Your task to perform on an android device: turn notification dots on Image 0: 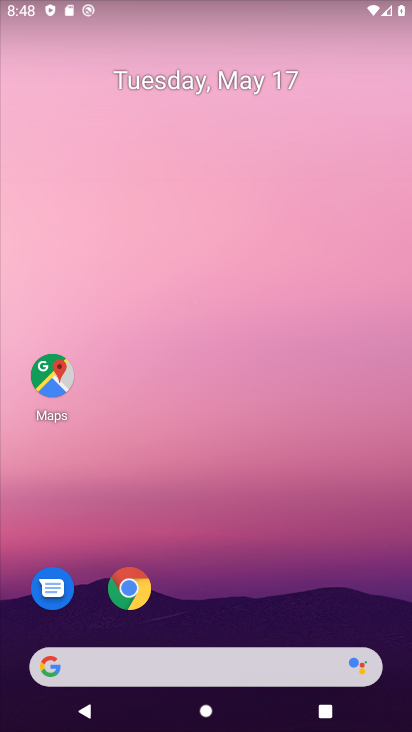
Step 0: drag from (382, 610) to (372, 315)
Your task to perform on an android device: turn notification dots on Image 1: 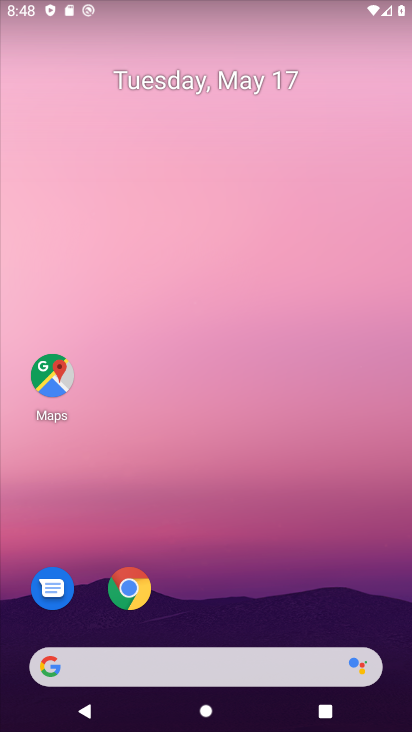
Step 1: drag from (369, 524) to (359, 324)
Your task to perform on an android device: turn notification dots on Image 2: 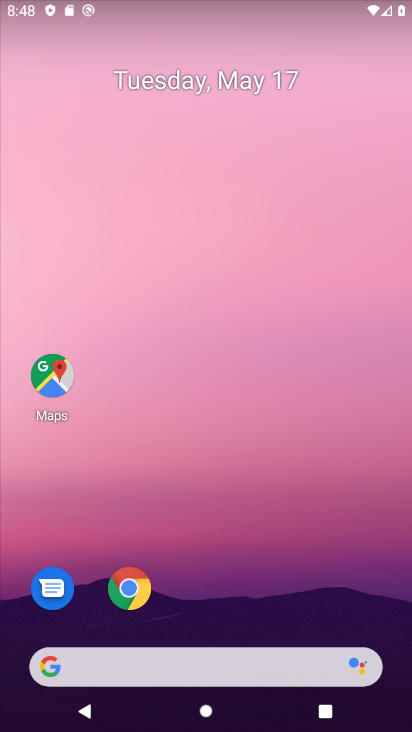
Step 2: drag from (365, 562) to (339, 257)
Your task to perform on an android device: turn notification dots on Image 3: 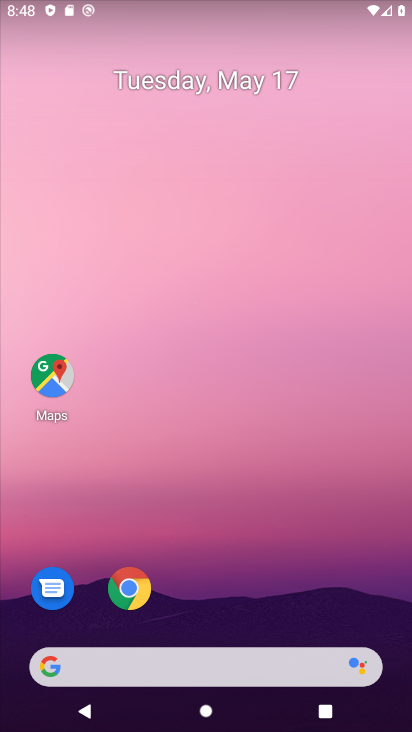
Step 3: drag from (403, 711) to (388, 312)
Your task to perform on an android device: turn notification dots on Image 4: 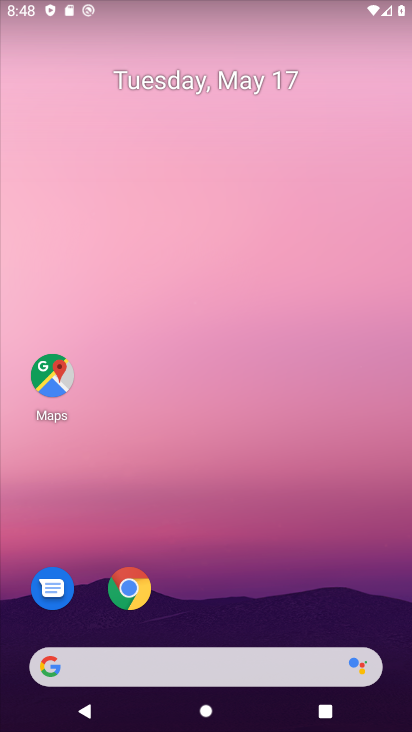
Step 4: drag from (387, 598) to (383, 60)
Your task to perform on an android device: turn notification dots on Image 5: 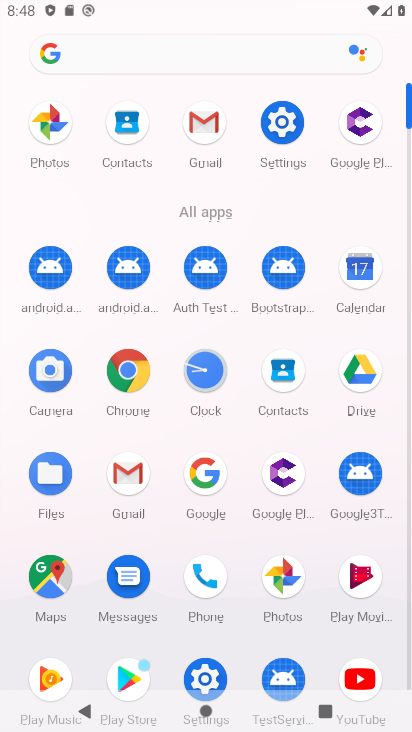
Step 5: click (282, 130)
Your task to perform on an android device: turn notification dots on Image 6: 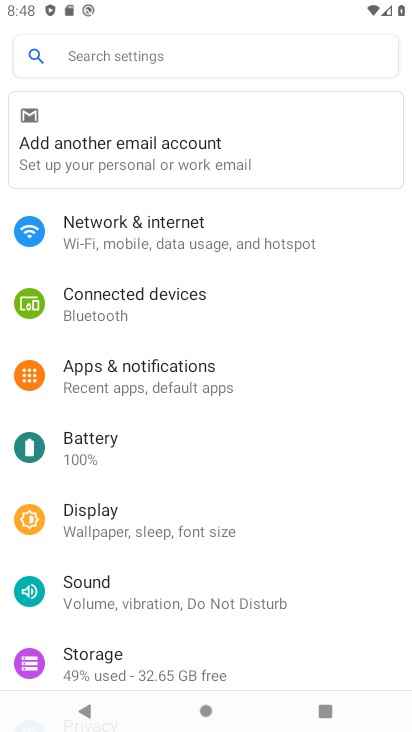
Step 6: drag from (353, 654) to (316, 287)
Your task to perform on an android device: turn notification dots on Image 7: 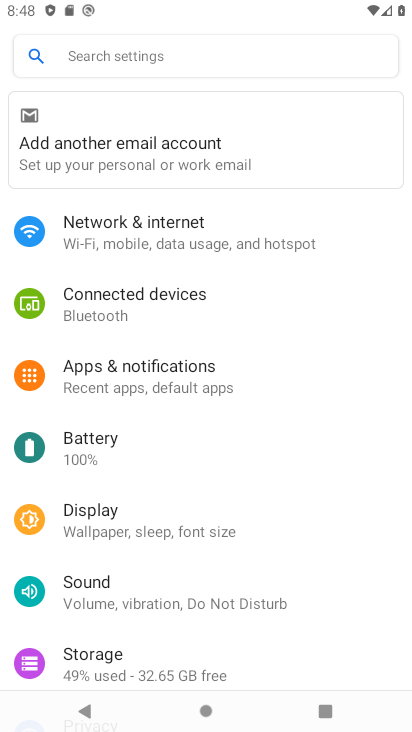
Step 7: drag from (366, 650) to (363, 333)
Your task to perform on an android device: turn notification dots on Image 8: 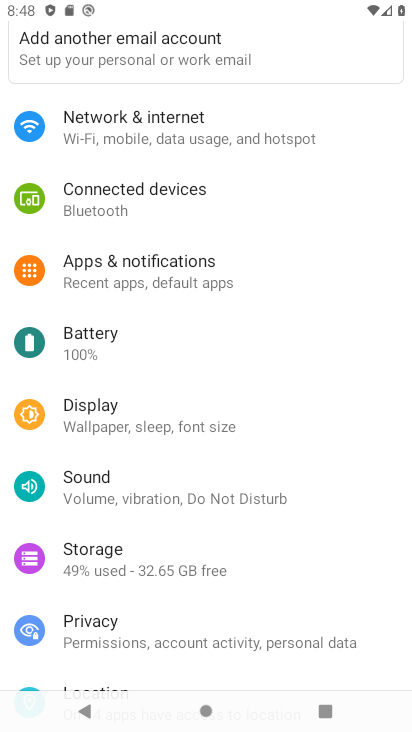
Step 8: click (115, 259)
Your task to perform on an android device: turn notification dots on Image 9: 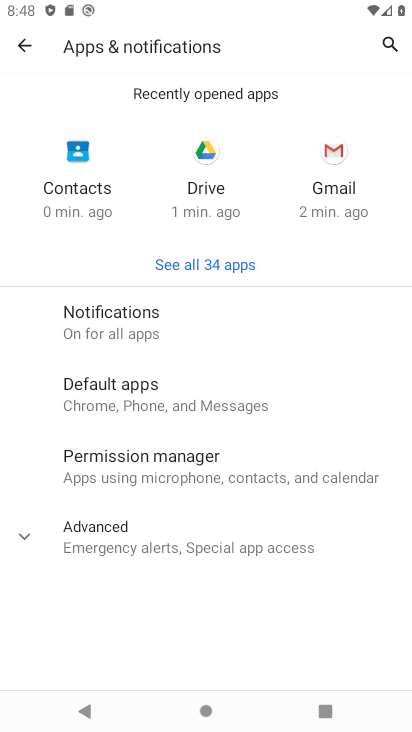
Step 9: click (107, 312)
Your task to perform on an android device: turn notification dots on Image 10: 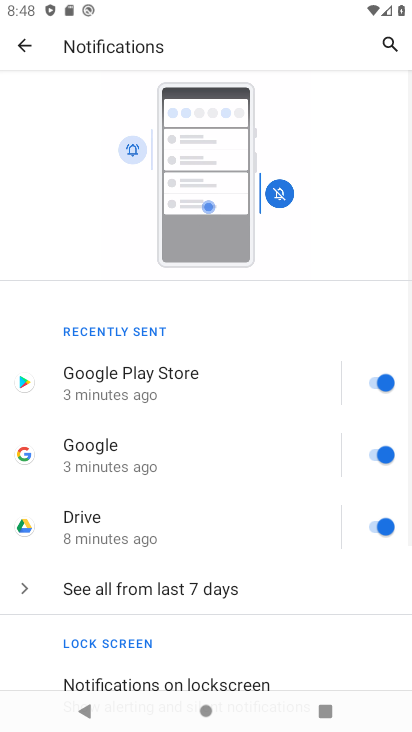
Step 10: drag from (294, 654) to (289, 419)
Your task to perform on an android device: turn notification dots on Image 11: 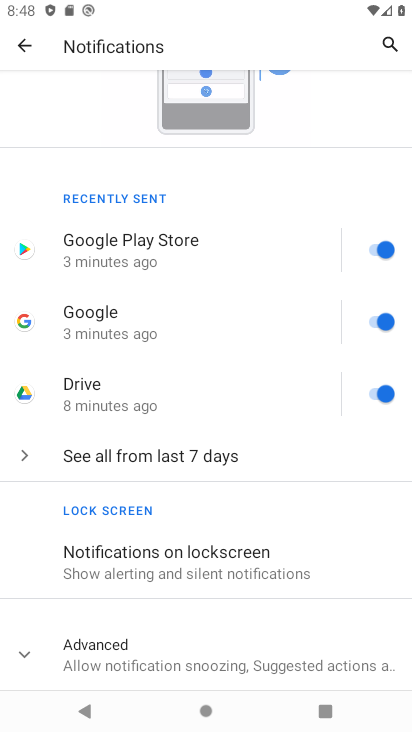
Step 11: drag from (276, 648) to (266, 406)
Your task to perform on an android device: turn notification dots on Image 12: 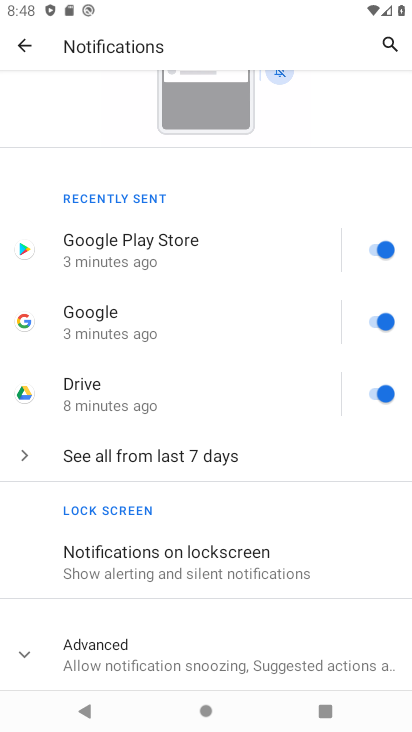
Step 12: click (44, 654)
Your task to perform on an android device: turn notification dots on Image 13: 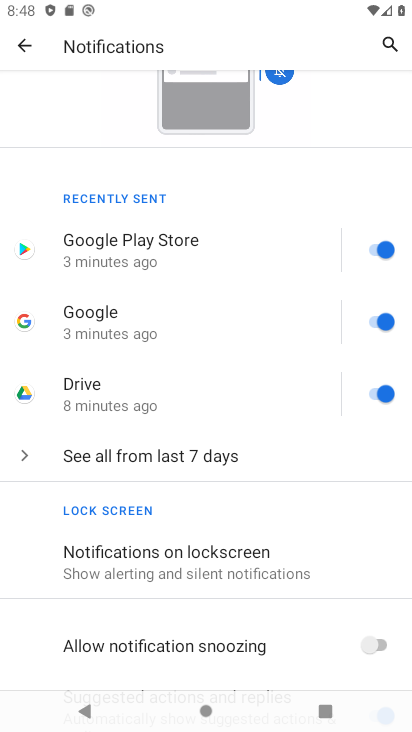
Step 13: task complete